Your task to perform on an android device: check android version Image 0: 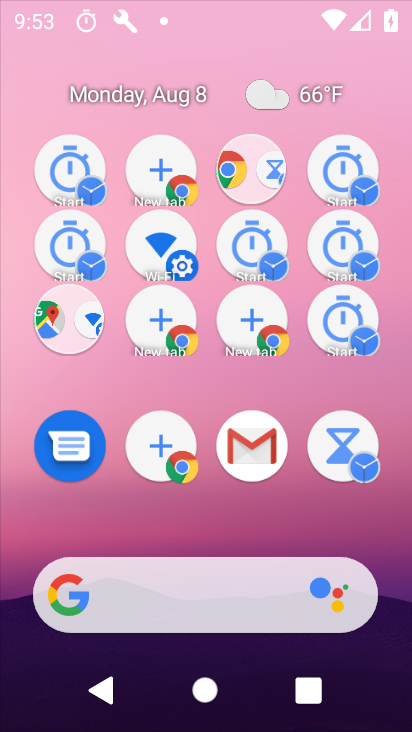
Step 0: press back button
Your task to perform on an android device: check android version Image 1: 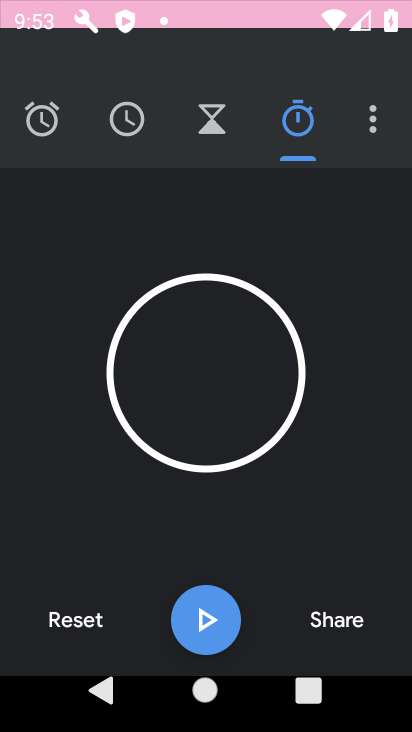
Step 1: drag from (248, 575) to (234, 203)
Your task to perform on an android device: check android version Image 2: 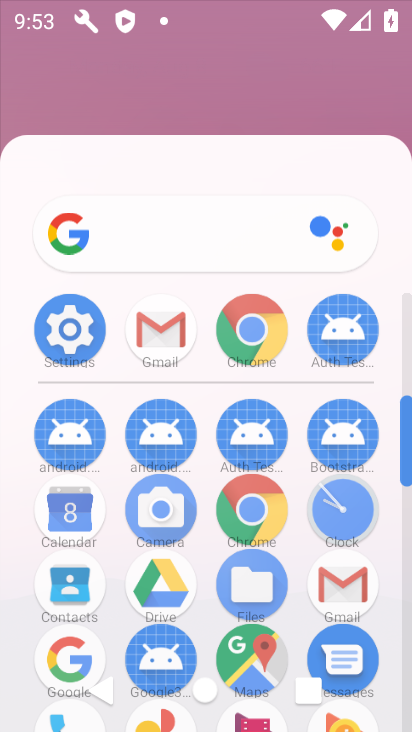
Step 2: drag from (235, 434) to (188, 65)
Your task to perform on an android device: check android version Image 3: 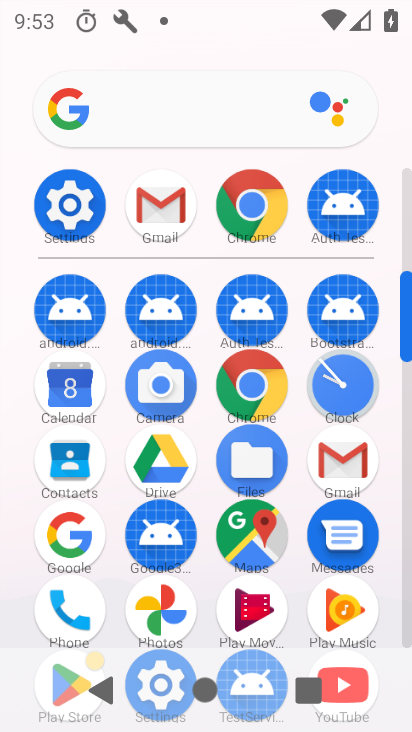
Step 3: click (63, 213)
Your task to perform on an android device: check android version Image 4: 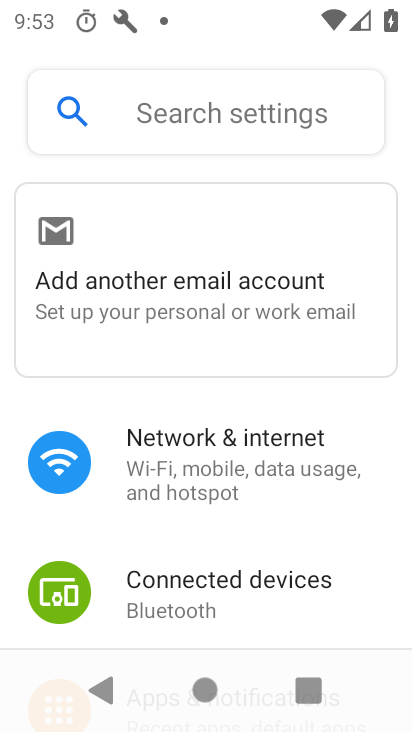
Step 4: drag from (190, 557) to (157, 174)
Your task to perform on an android device: check android version Image 5: 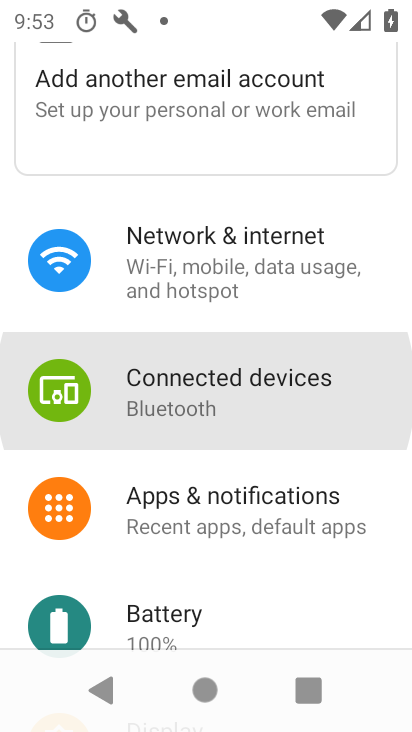
Step 5: drag from (244, 565) to (239, 235)
Your task to perform on an android device: check android version Image 6: 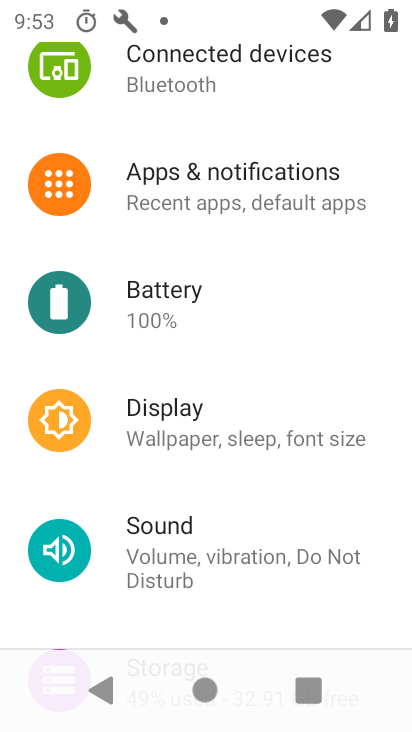
Step 6: drag from (211, 432) to (217, 234)
Your task to perform on an android device: check android version Image 7: 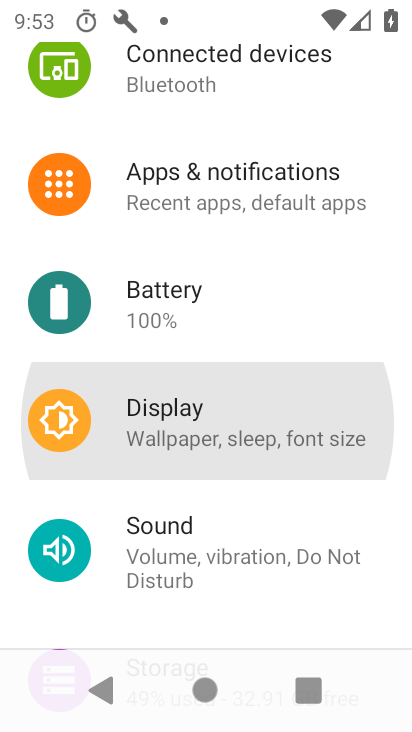
Step 7: drag from (243, 504) to (221, 106)
Your task to perform on an android device: check android version Image 8: 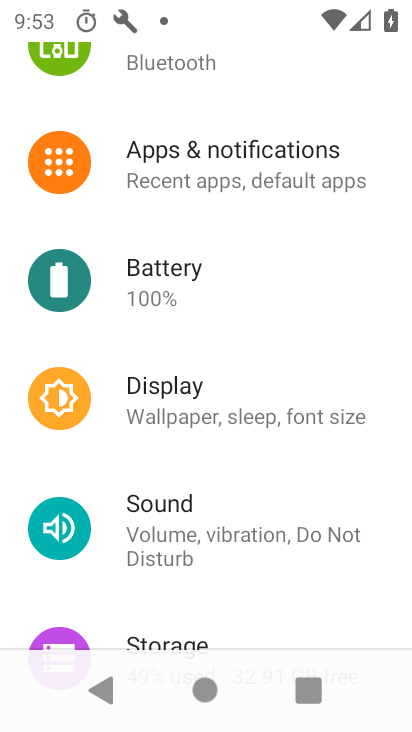
Step 8: drag from (260, 365) to (243, 253)
Your task to perform on an android device: check android version Image 9: 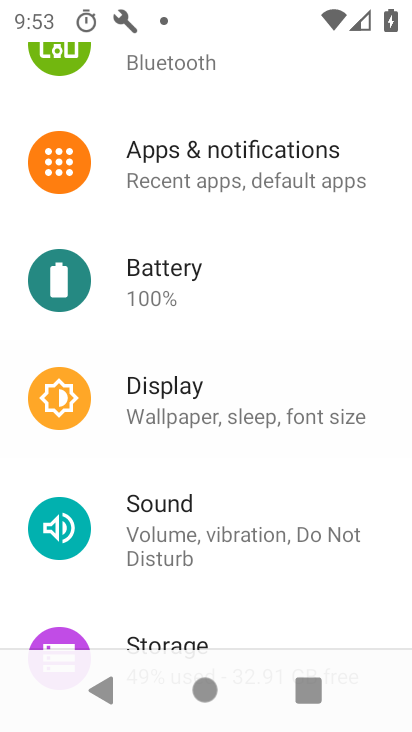
Step 9: drag from (262, 512) to (251, 327)
Your task to perform on an android device: check android version Image 10: 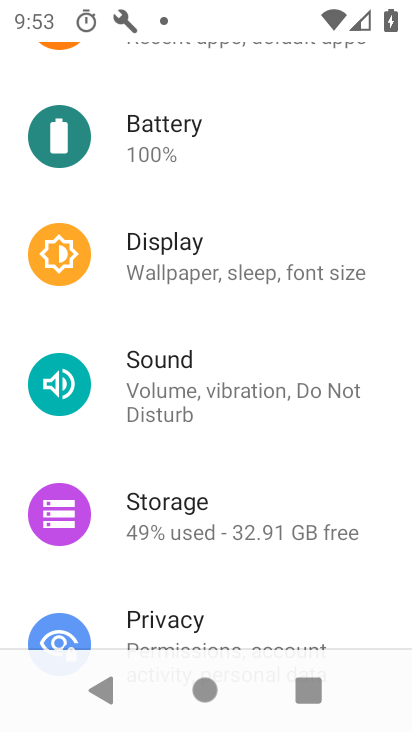
Step 10: drag from (204, 217) to (200, 173)
Your task to perform on an android device: check android version Image 11: 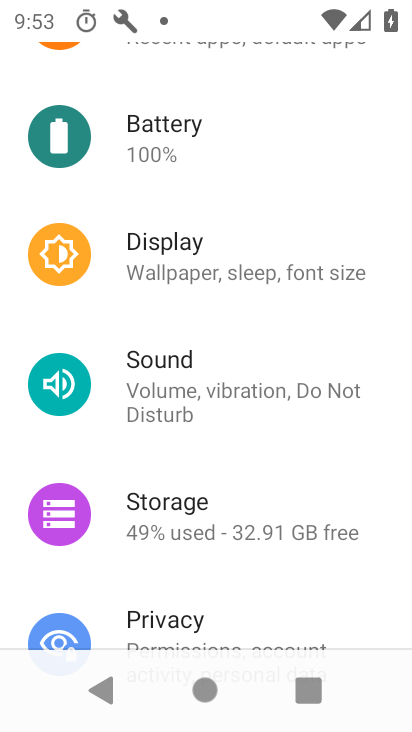
Step 11: drag from (209, 437) to (212, 208)
Your task to perform on an android device: check android version Image 12: 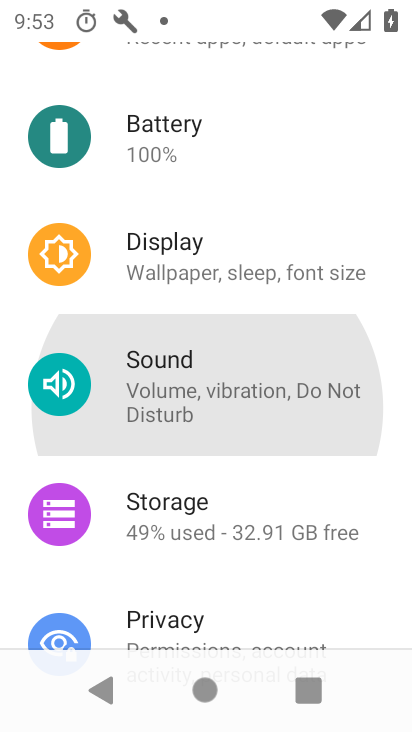
Step 12: drag from (237, 467) to (220, 162)
Your task to perform on an android device: check android version Image 13: 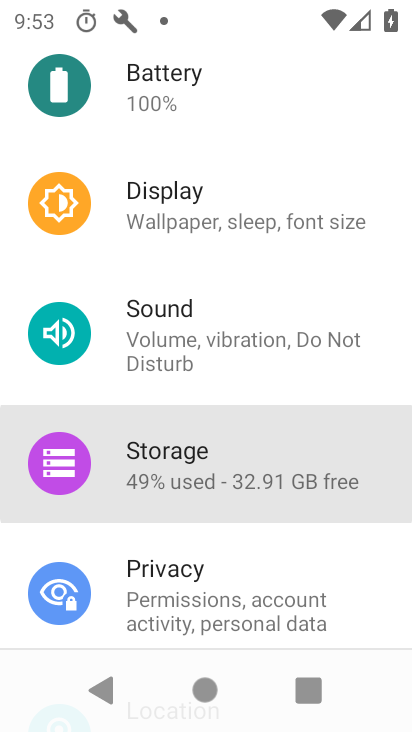
Step 13: drag from (238, 477) to (219, 176)
Your task to perform on an android device: check android version Image 14: 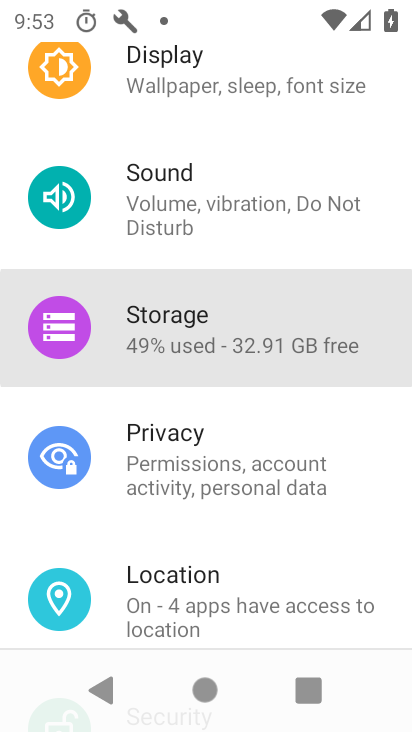
Step 14: drag from (251, 491) to (246, 209)
Your task to perform on an android device: check android version Image 15: 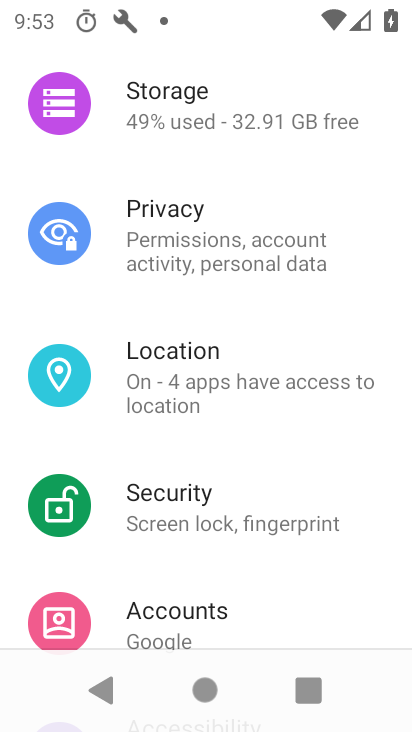
Step 15: drag from (278, 531) to (270, 184)
Your task to perform on an android device: check android version Image 16: 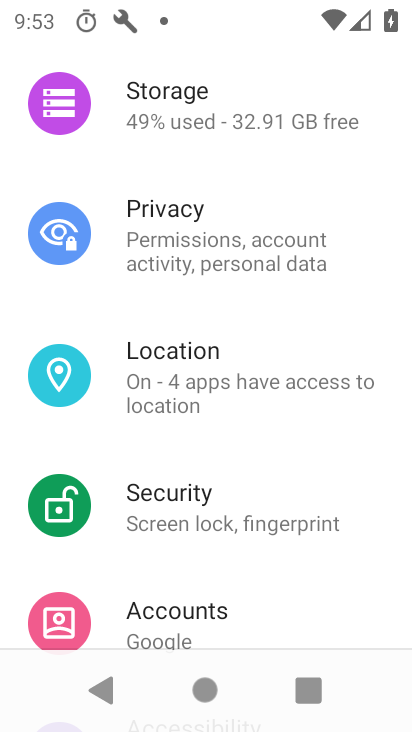
Step 16: drag from (294, 551) to (264, 162)
Your task to perform on an android device: check android version Image 17: 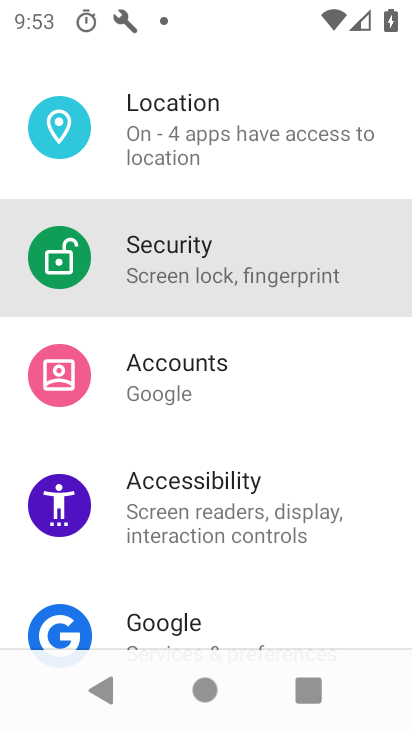
Step 17: drag from (251, 534) to (217, 126)
Your task to perform on an android device: check android version Image 18: 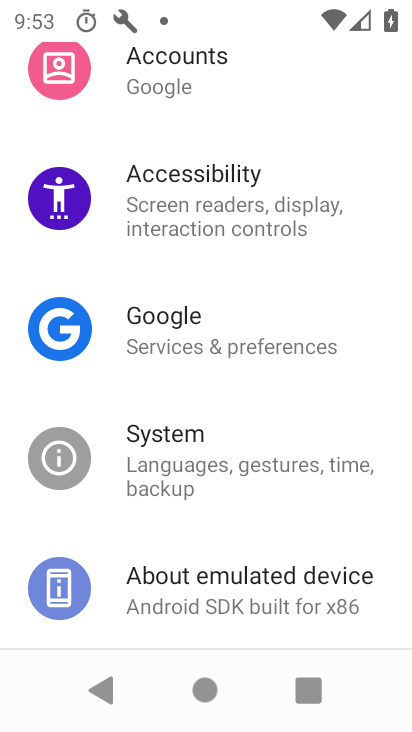
Step 18: drag from (201, 580) to (158, 123)
Your task to perform on an android device: check android version Image 19: 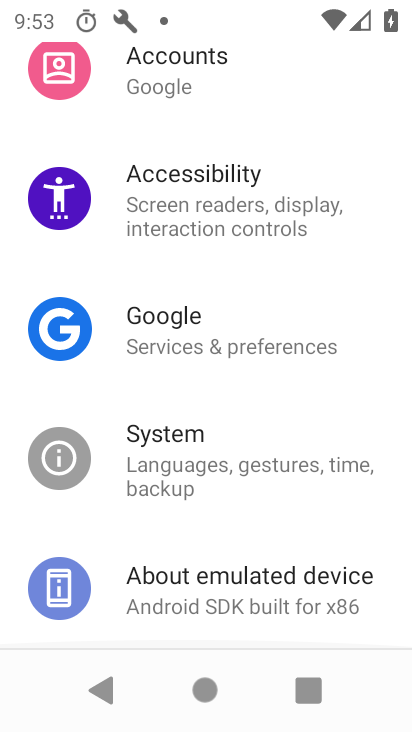
Step 19: click (186, 582)
Your task to perform on an android device: check android version Image 20: 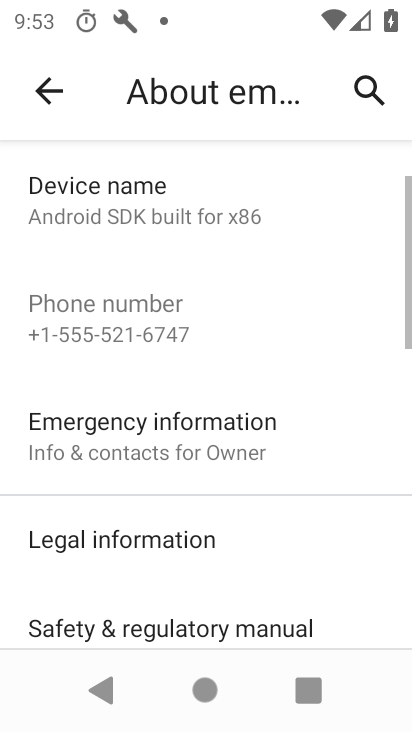
Step 20: task complete